Your task to perform on an android device: Go to battery settings Image 0: 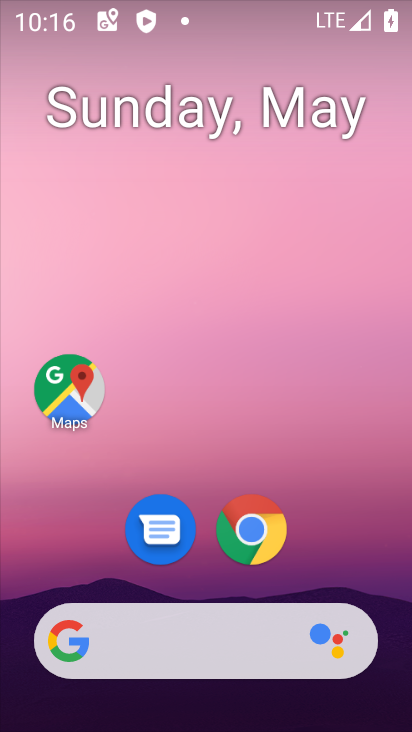
Step 0: drag from (384, 565) to (261, 103)
Your task to perform on an android device: Go to battery settings Image 1: 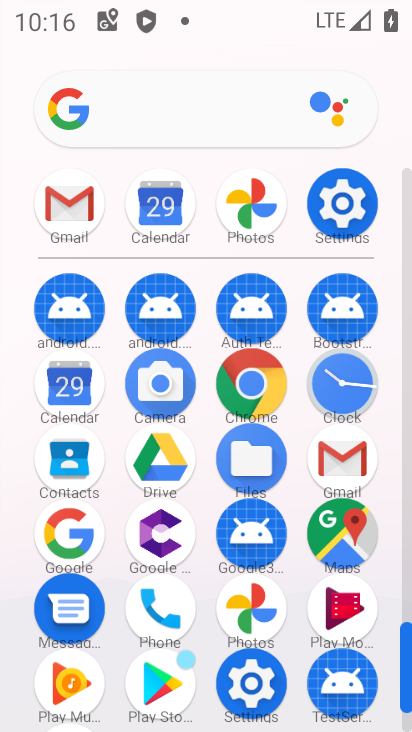
Step 1: click (343, 227)
Your task to perform on an android device: Go to battery settings Image 2: 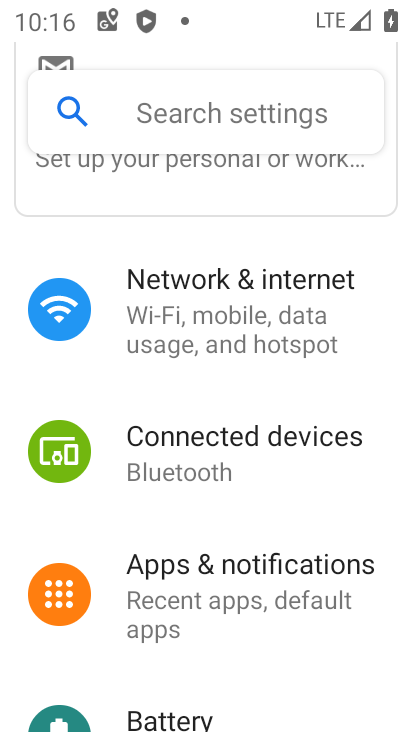
Step 2: click (190, 703)
Your task to perform on an android device: Go to battery settings Image 3: 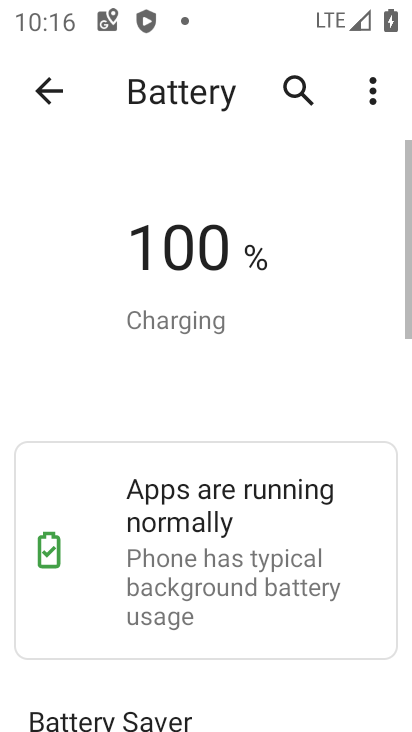
Step 3: task complete